Your task to perform on an android device: Show the shopping cart on ebay.com. Add "bose soundsport free" to the cart on ebay.com, then select checkout. Image 0: 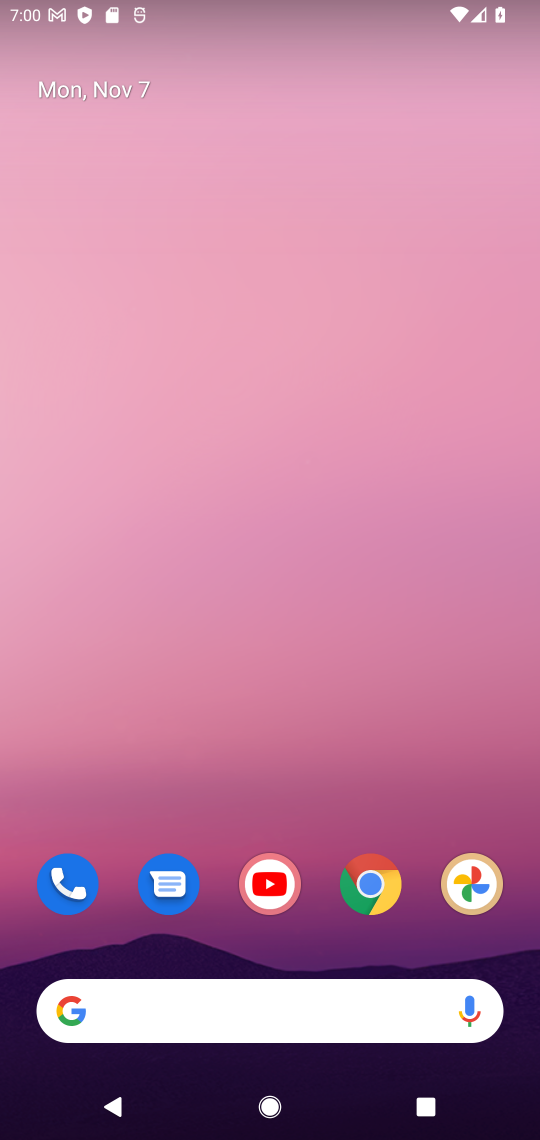
Step 0: click (363, 880)
Your task to perform on an android device: Show the shopping cart on ebay.com. Add "bose soundsport free" to the cart on ebay.com, then select checkout. Image 1: 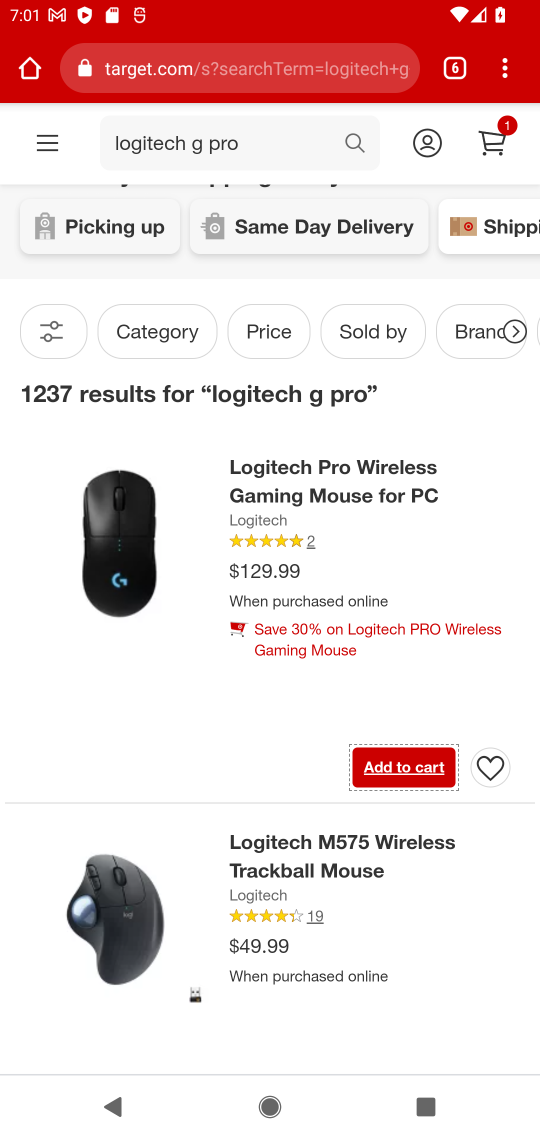
Step 1: click (452, 69)
Your task to perform on an android device: Show the shopping cart on ebay.com. Add "bose soundsport free" to the cart on ebay.com, then select checkout. Image 2: 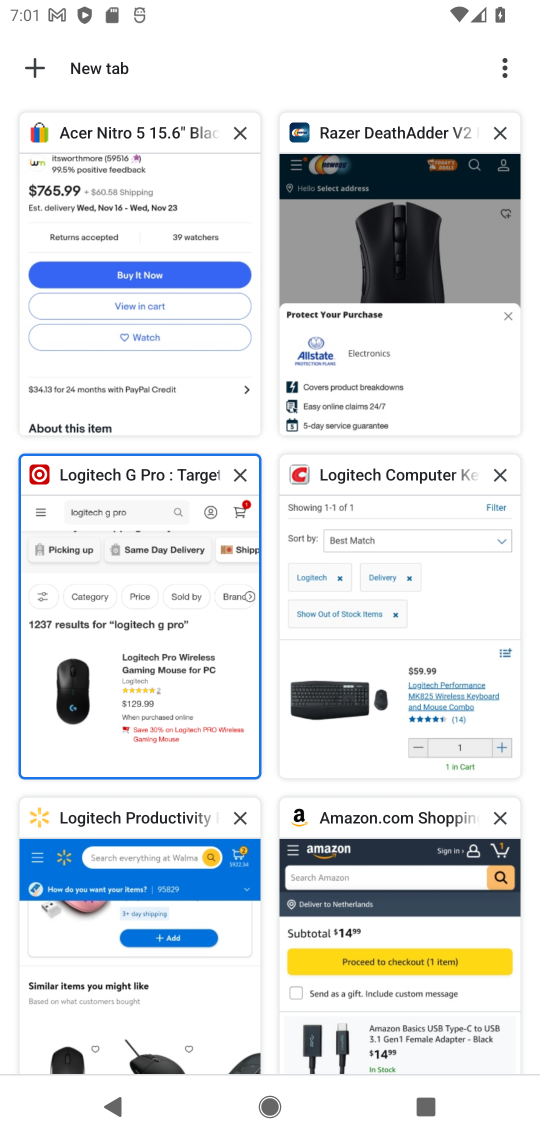
Step 2: click (148, 227)
Your task to perform on an android device: Show the shopping cart on ebay.com. Add "bose soundsport free" to the cart on ebay.com, then select checkout. Image 3: 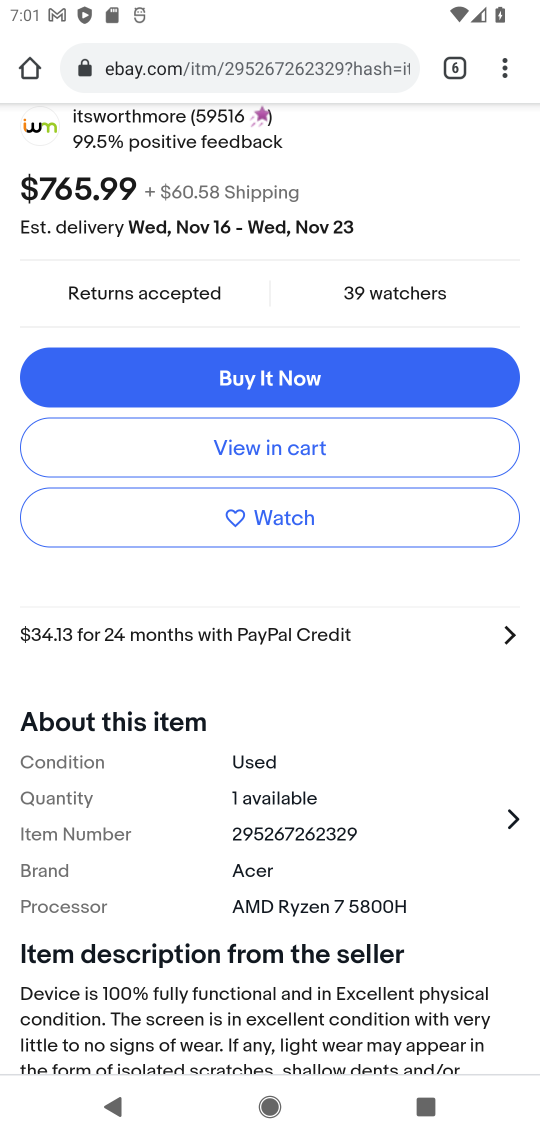
Step 3: drag from (471, 222) to (318, 1080)
Your task to perform on an android device: Show the shopping cart on ebay.com. Add "bose soundsport free" to the cart on ebay.com, then select checkout. Image 4: 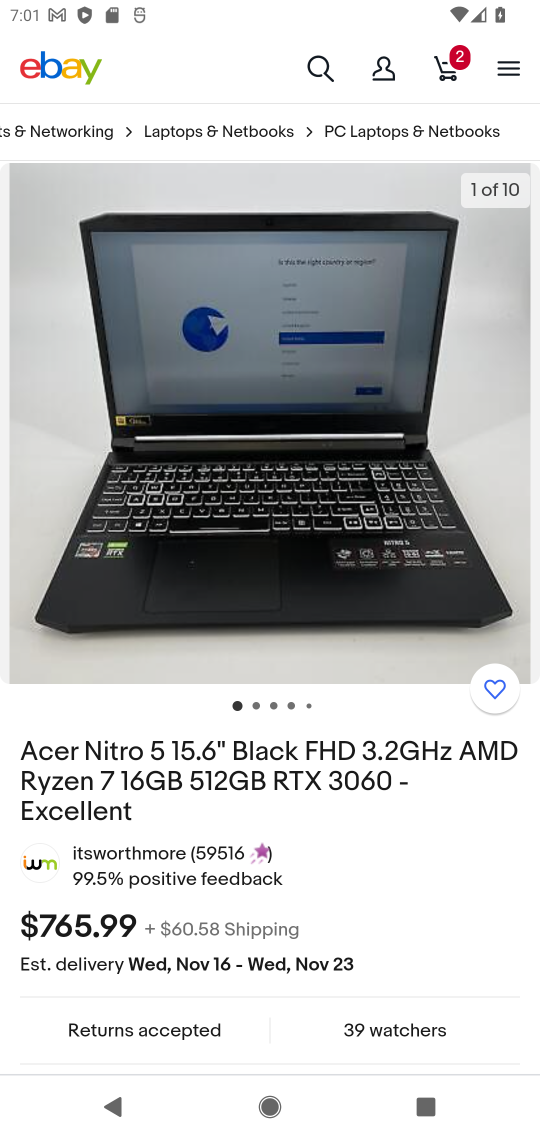
Step 4: click (320, 66)
Your task to perform on an android device: Show the shopping cart on ebay.com. Add "bose soundsport free" to the cart on ebay.com, then select checkout. Image 5: 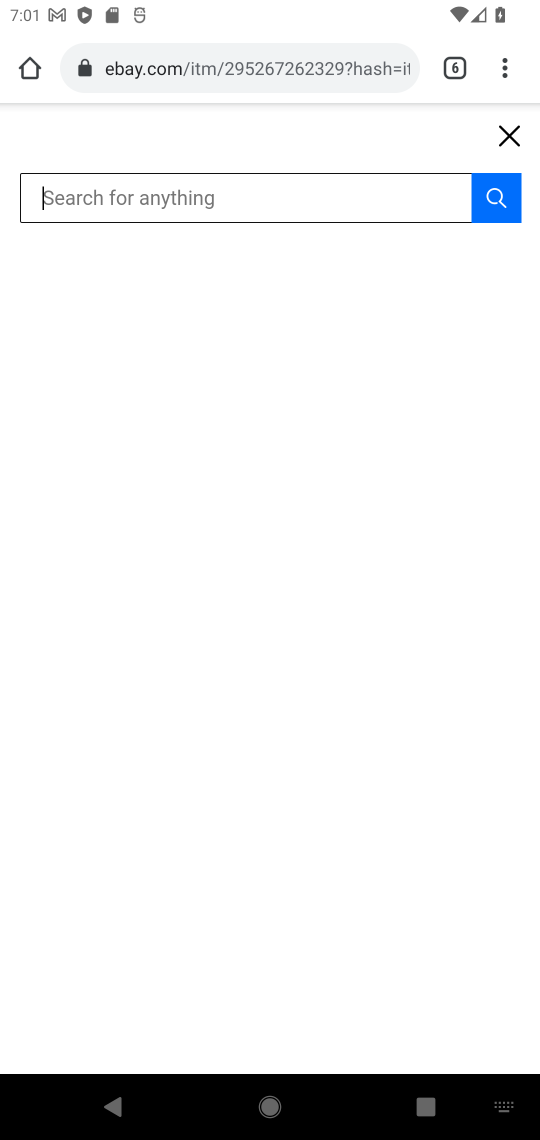
Step 5: type "bose soundsport free"
Your task to perform on an android device: Show the shopping cart on ebay.com. Add "bose soundsport free" to the cart on ebay.com, then select checkout. Image 6: 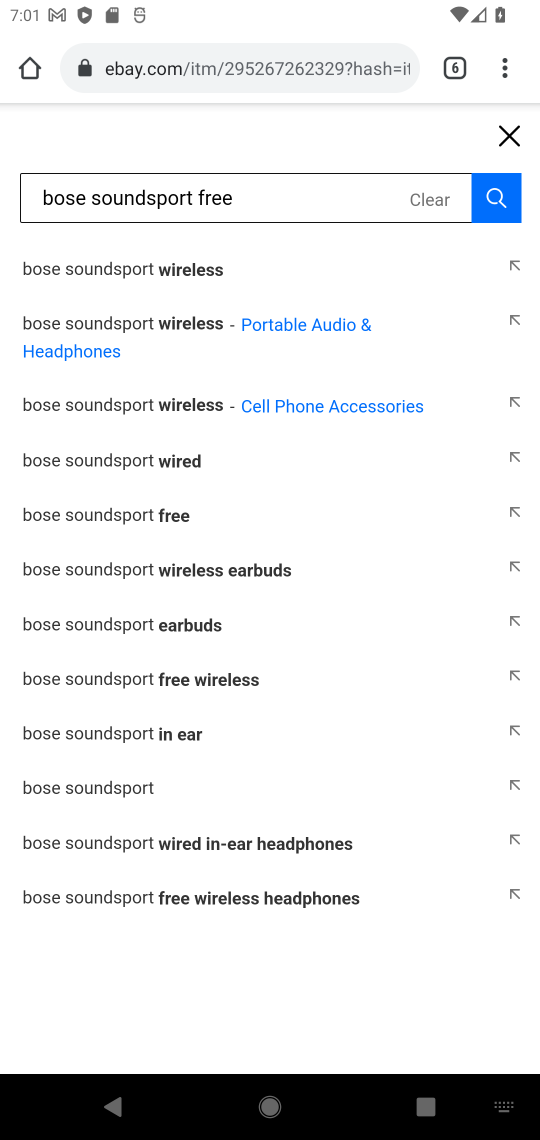
Step 6: click (173, 326)
Your task to perform on an android device: Show the shopping cart on ebay.com. Add "bose soundsport free" to the cart on ebay.com, then select checkout. Image 7: 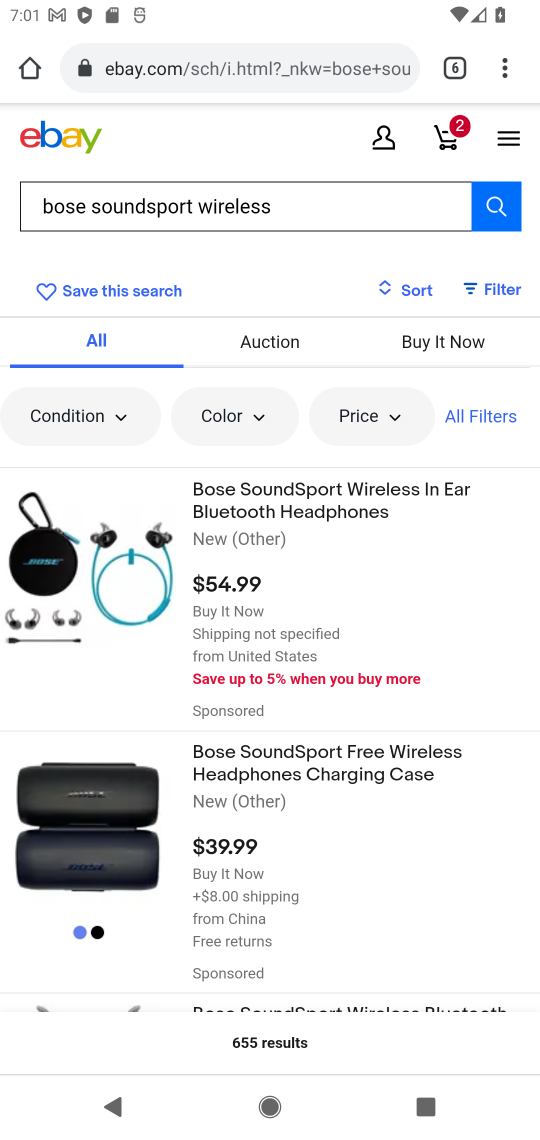
Step 7: click (401, 750)
Your task to perform on an android device: Show the shopping cart on ebay.com. Add "bose soundsport free" to the cart on ebay.com, then select checkout. Image 8: 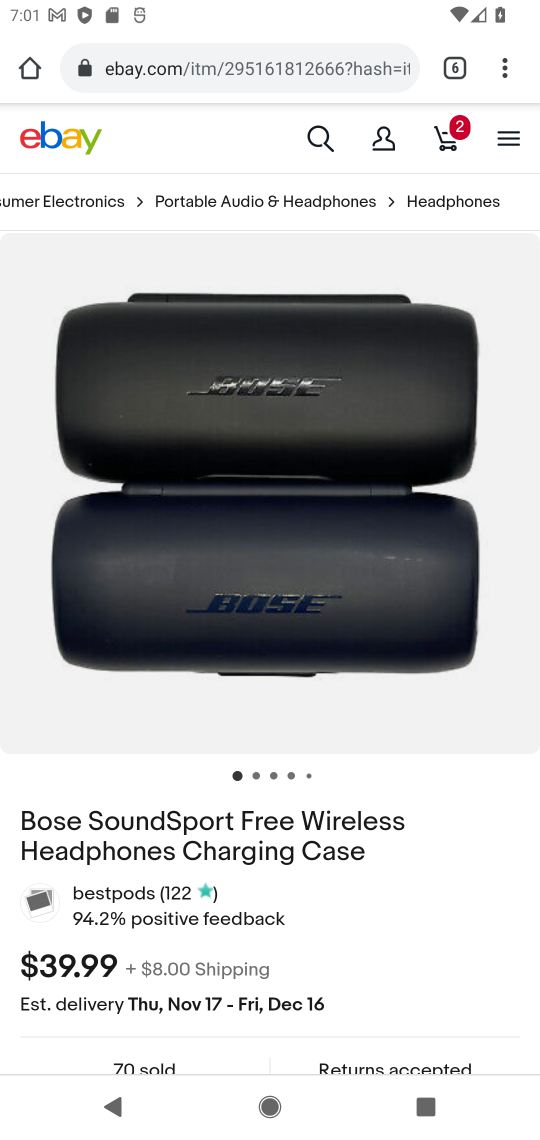
Step 8: drag from (336, 944) to (466, 10)
Your task to perform on an android device: Show the shopping cart on ebay.com. Add "bose soundsport free" to the cart on ebay.com, then select checkout. Image 9: 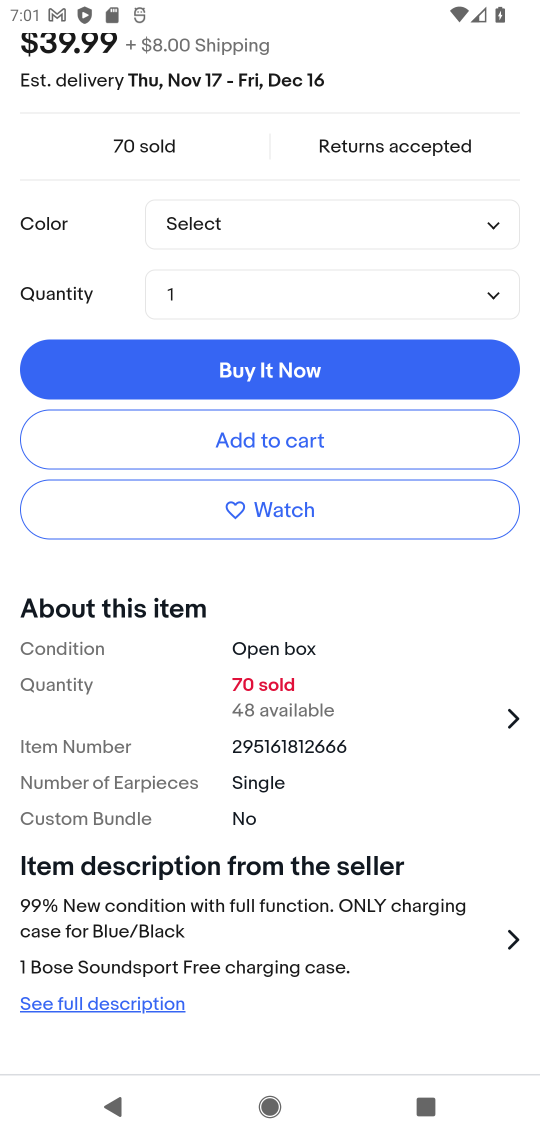
Step 9: click (312, 423)
Your task to perform on an android device: Show the shopping cart on ebay.com. Add "bose soundsport free" to the cart on ebay.com, then select checkout. Image 10: 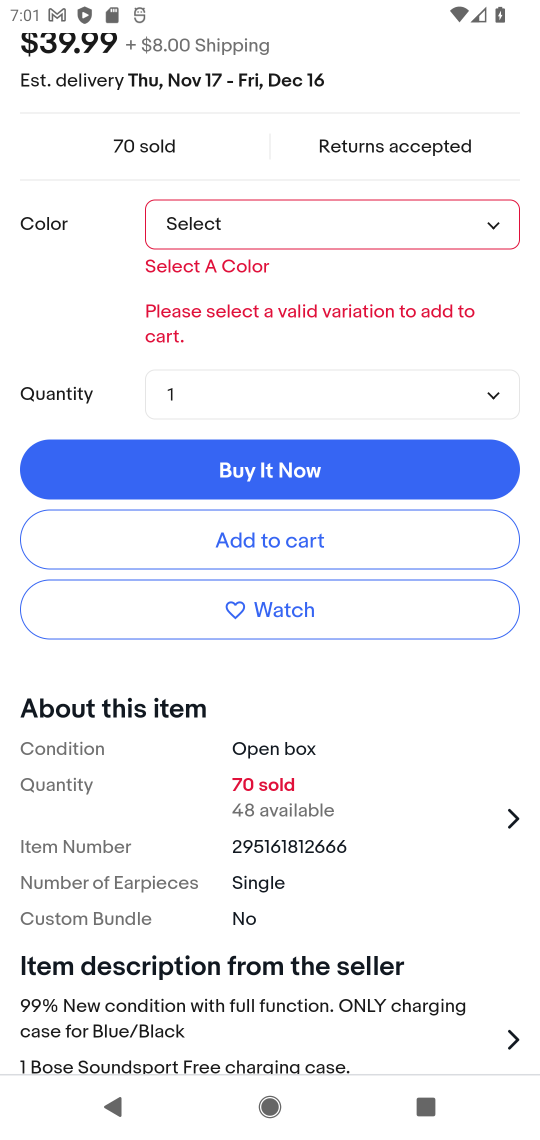
Step 10: click (490, 225)
Your task to perform on an android device: Show the shopping cart on ebay.com. Add "bose soundsport free" to the cart on ebay.com, then select checkout. Image 11: 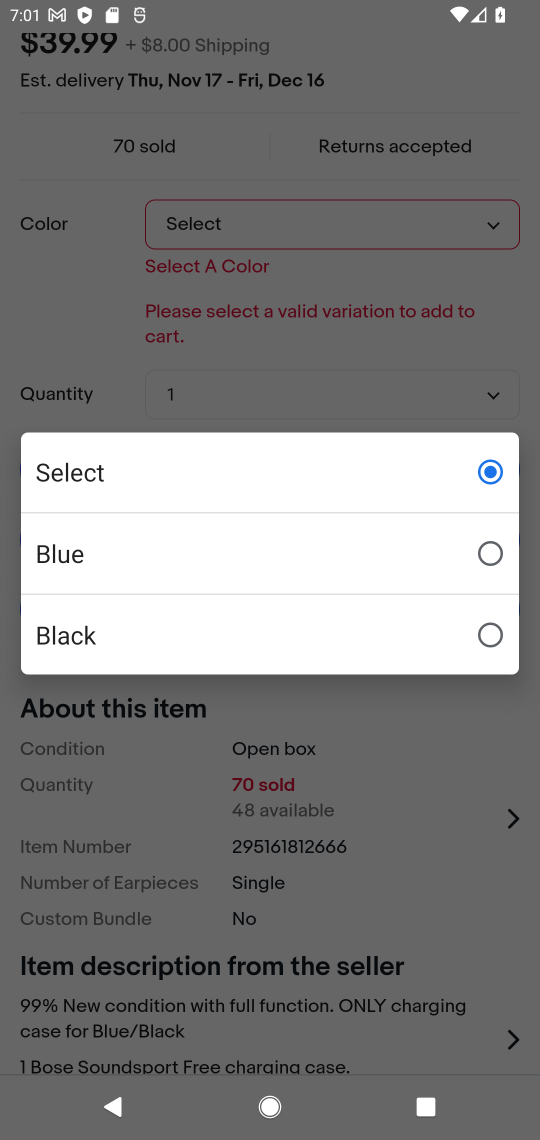
Step 11: click (490, 552)
Your task to perform on an android device: Show the shopping cart on ebay.com. Add "bose soundsport free" to the cart on ebay.com, then select checkout. Image 12: 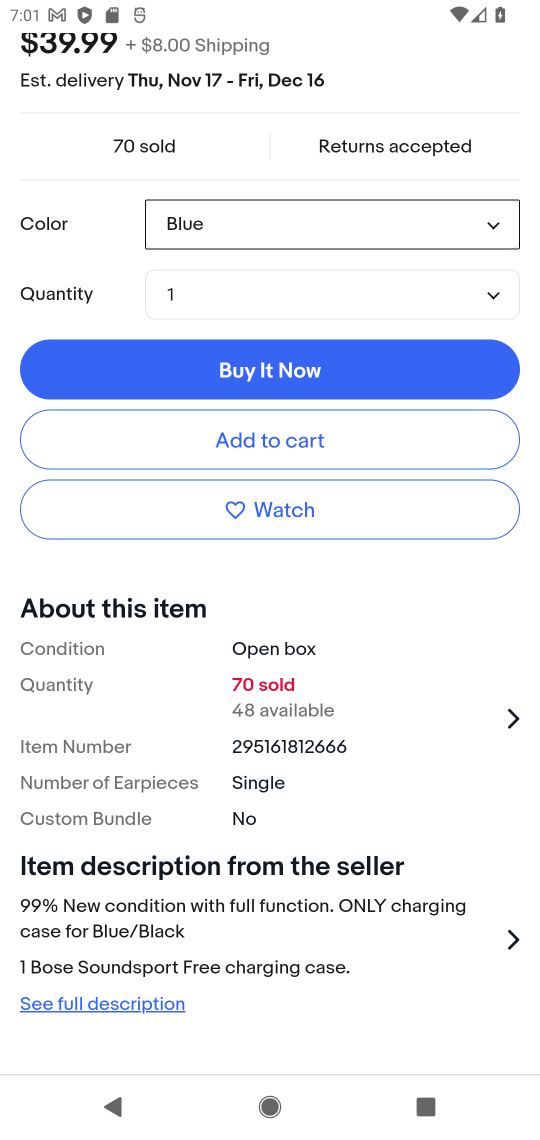
Step 12: click (301, 441)
Your task to perform on an android device: Show the shopping cart on ebay.com. Add "bose soundsport free" to the cart on ebay.com, then select checkout. Image 13: 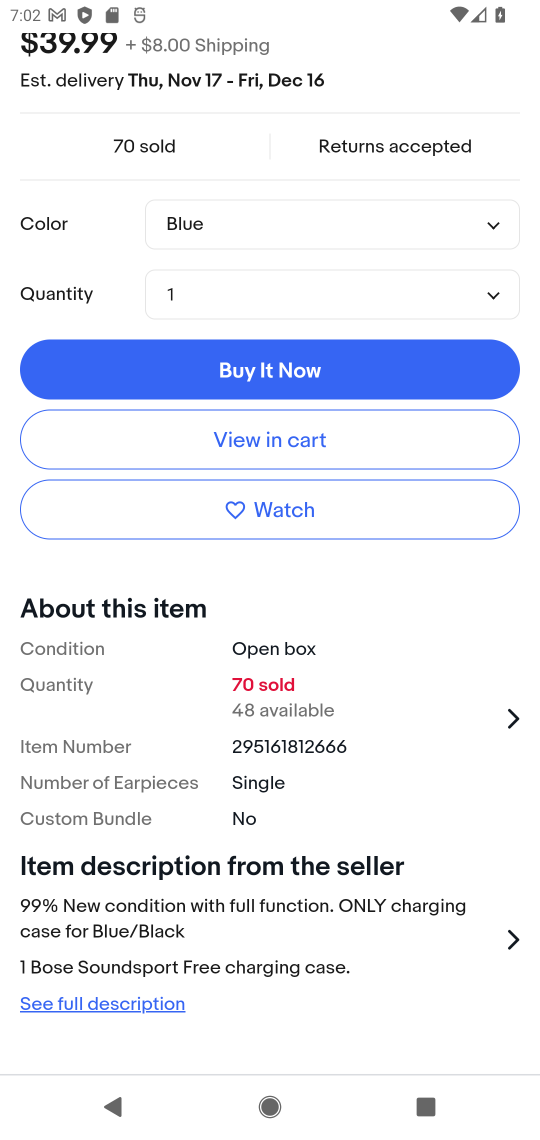
Step 13: task complete